Your task to perform on an android device: change notifications settings Image 0: 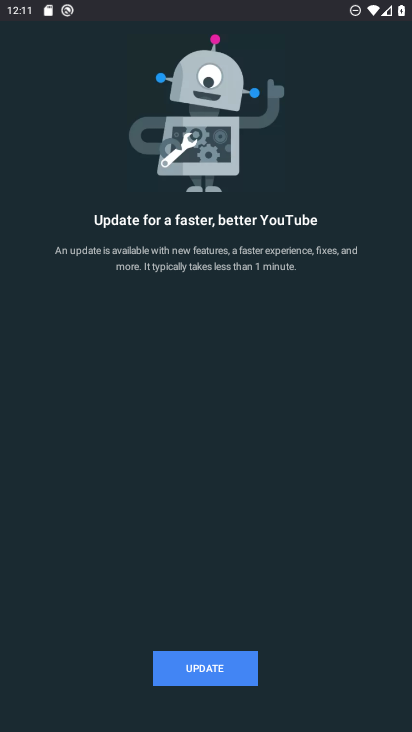
Step 0: press back button
Your task to perform on an android device: change notifications settings Image 1: 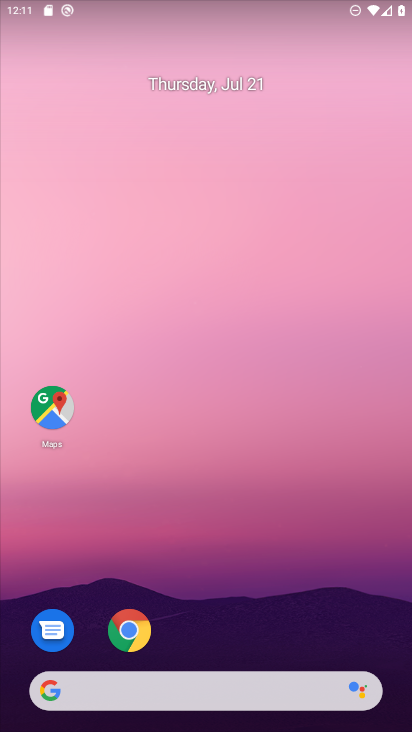
Step 1: drag from (382, 202) to (369, 158)
Your task to perform on an android device: change notifications settings Image 2: 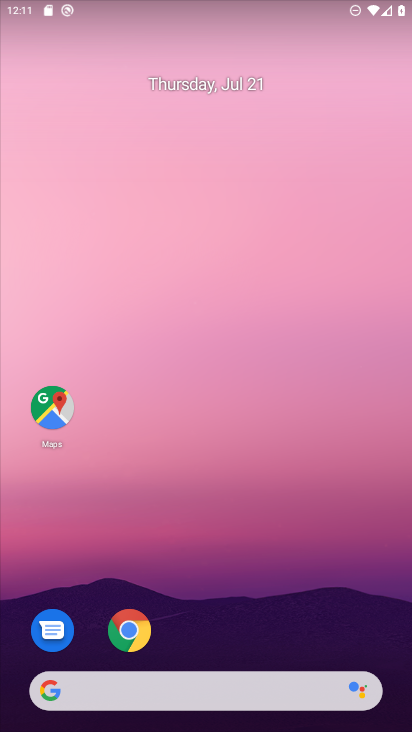
Step 2: drag from (388, 710) to (344, 119)
Your task to perform on an android device: change notifications settings Image 3: 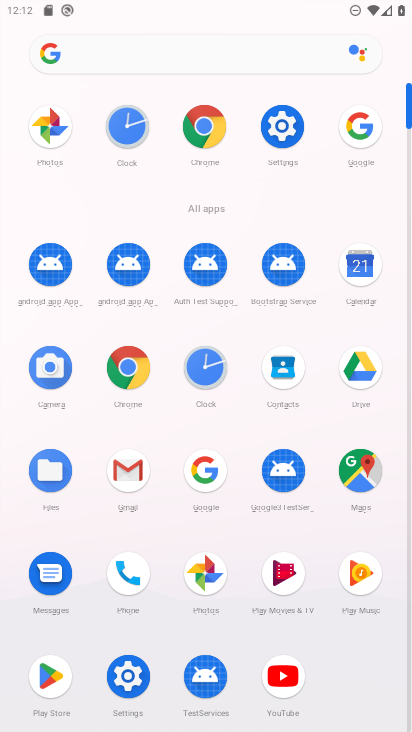
Step 3: click (131, 674)
Your task to perform on an android device: change notifications settings Image 4: 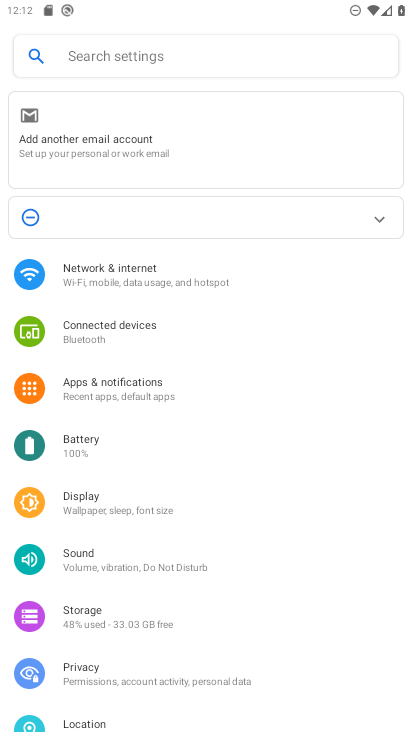
Step 4: click (152, 388)
Your task to perform on an android device: change notifications settings Image 5: 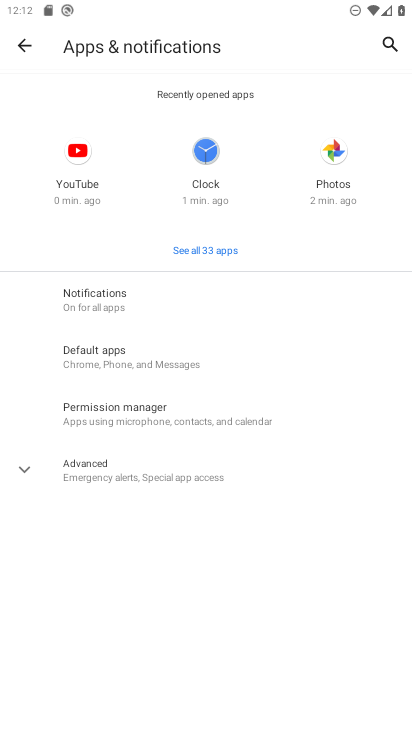
Step 5: click (23, 462)
Your task to perform on an android device: change notifications settings Image 6: 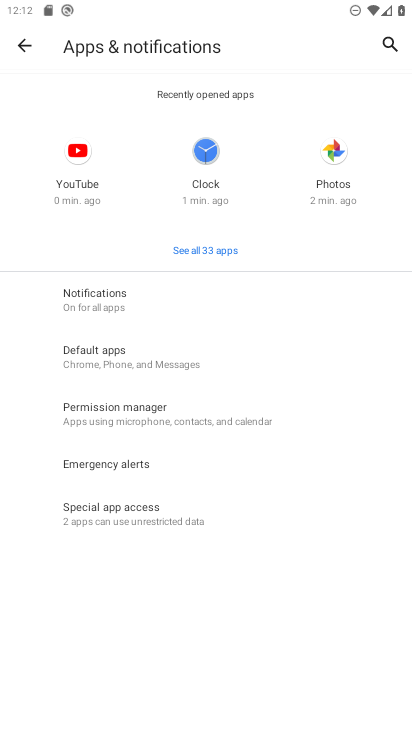
Step 6: click (101, 304)
Your task to perform on an android device: change notifications settings Image 7: 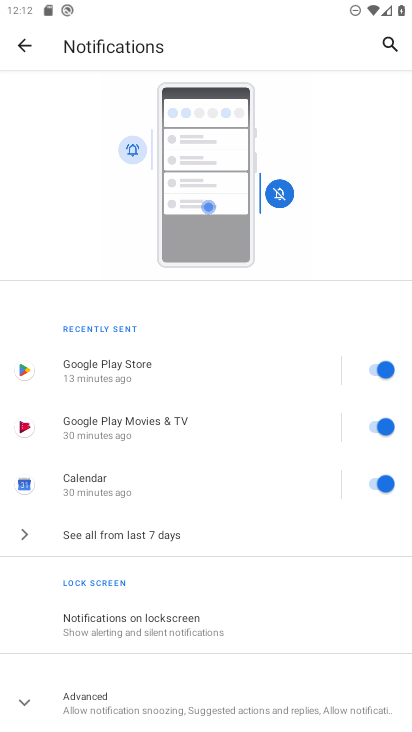
Step 7: click (378, 369)
Your task to perform on an android device: change notifications settings Image 8: 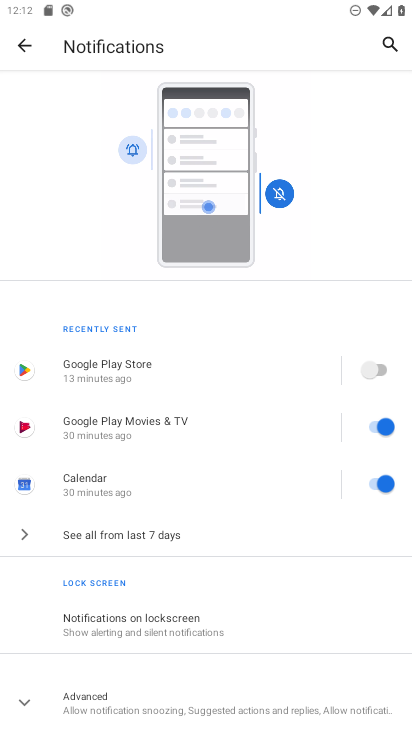
Step 8: click (381, 422)
Your task to perform on an android device: change notifications settings Image 9: 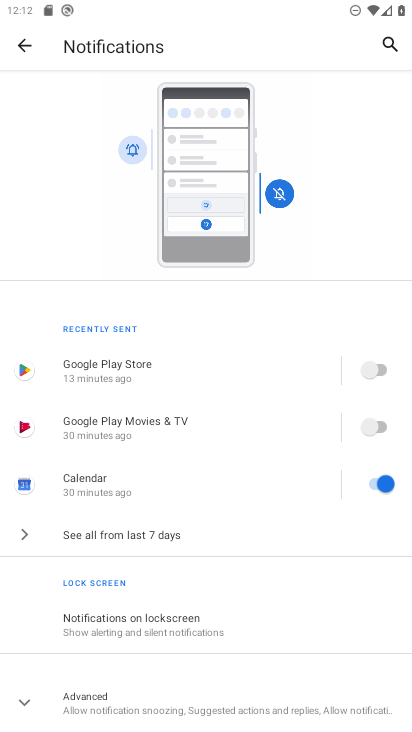
Step 9: click (379, 482)
Your task to perform on an android device: change notifications settings Image 10: 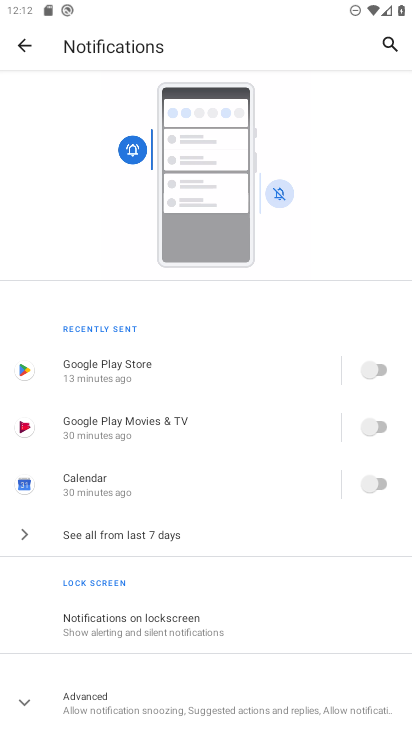
Step 10: task complete